Your task to perform on an android device: Play the latest video from the New York Times Image 0: 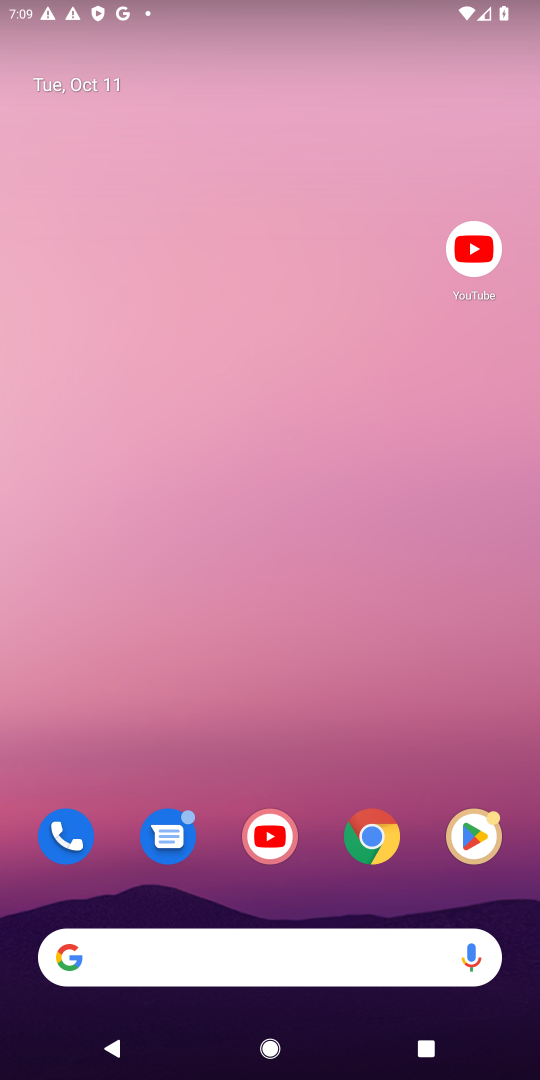
Step 0: click (371, 837)
Your task to perform on an android device: Play the latest video from the New York Times Image 1: 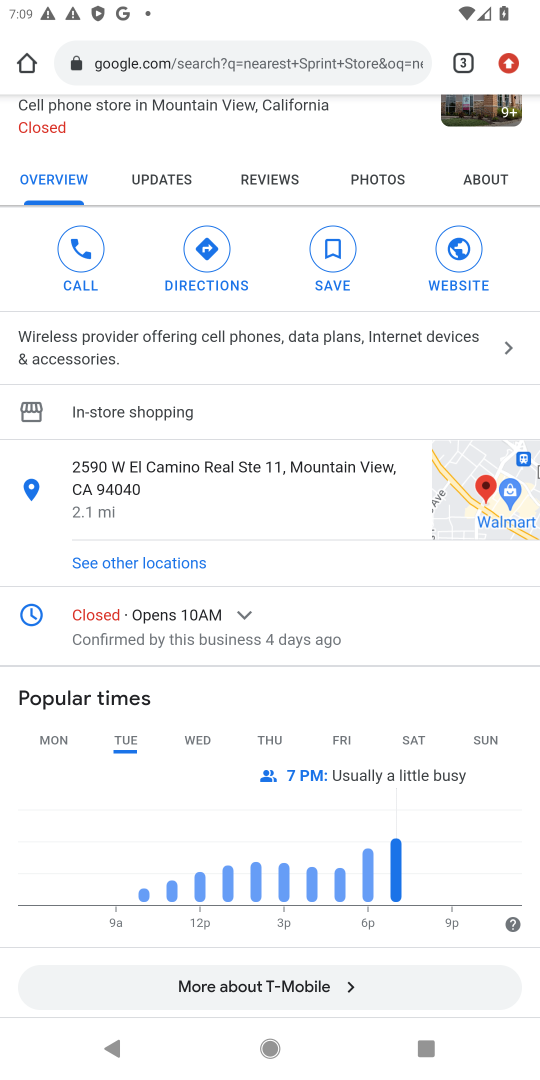
Step 1: click (246, 52)
Your task to perform on an android device: Play the latest video from the New York Times Image 2: 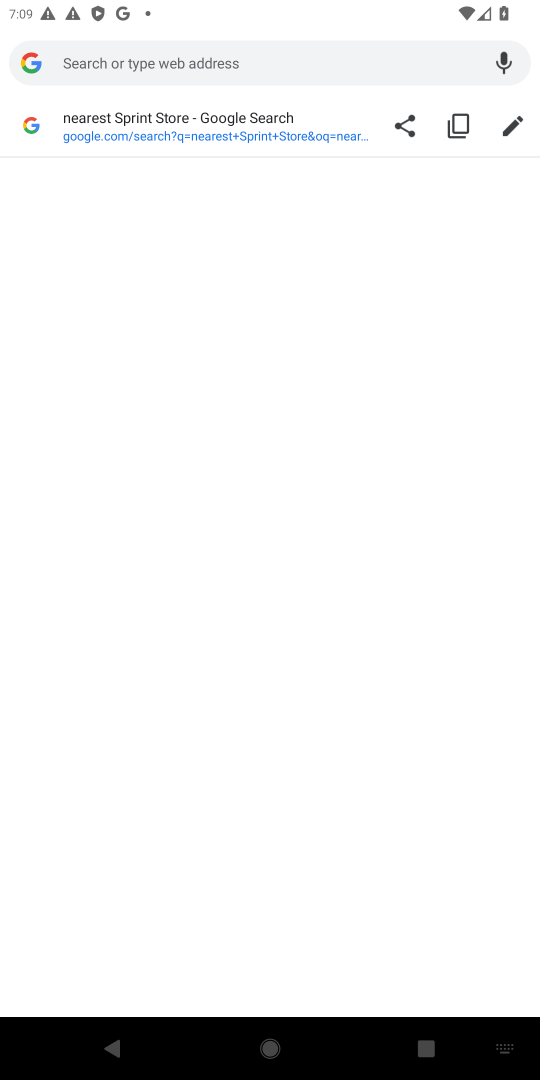
Step 2: type "latest video from the New York Times"
Your task to perform on an android device: Play the latest video from the New York Times Image 3: 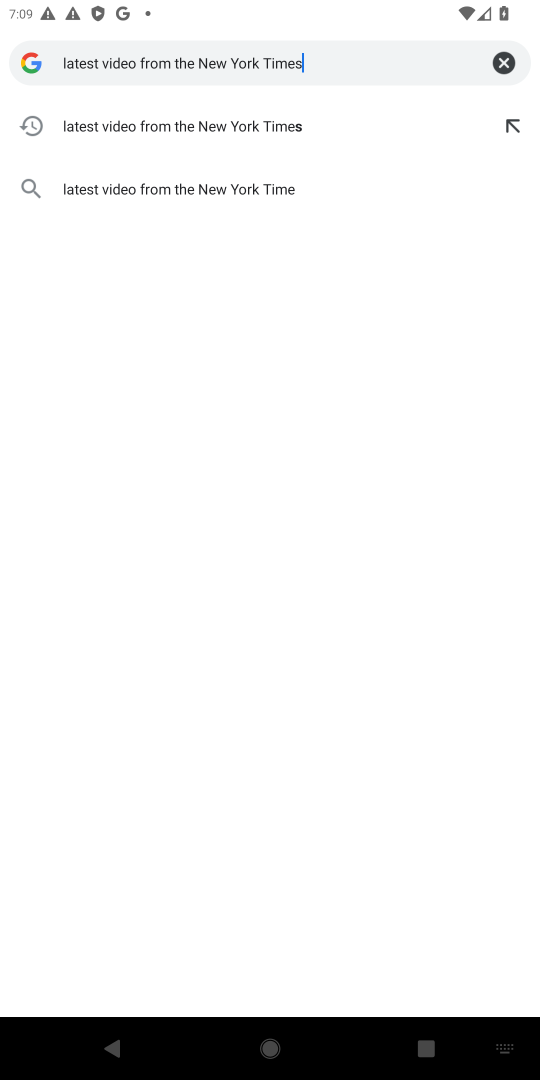
Step 3: press enter
Your task to perform on an android device: Play the latest video from the New York Times Image 4: 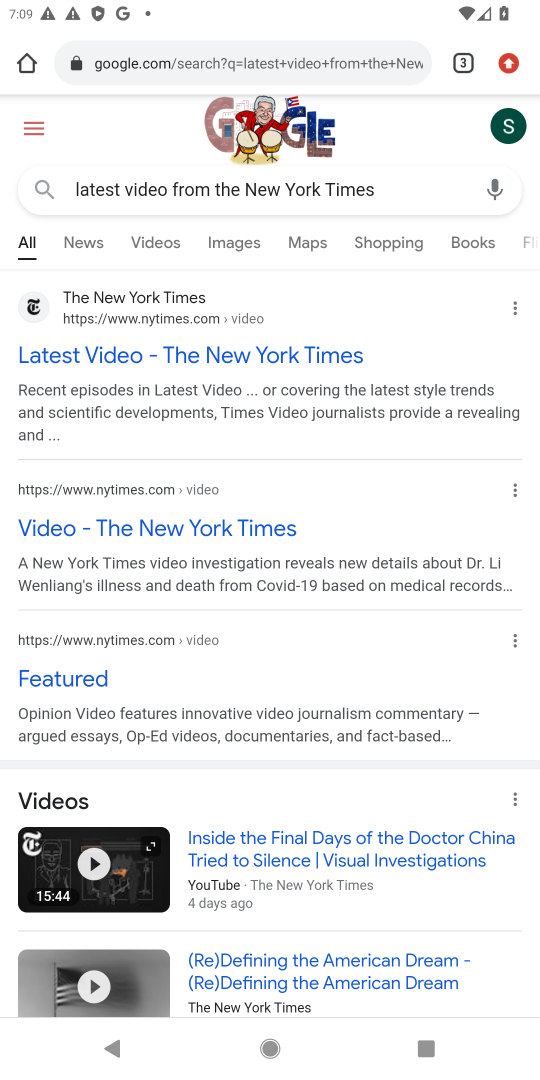
Step 4: click (106, 850)
Your task to perform on an android device: Play the latest video from the New York Times Image 5: 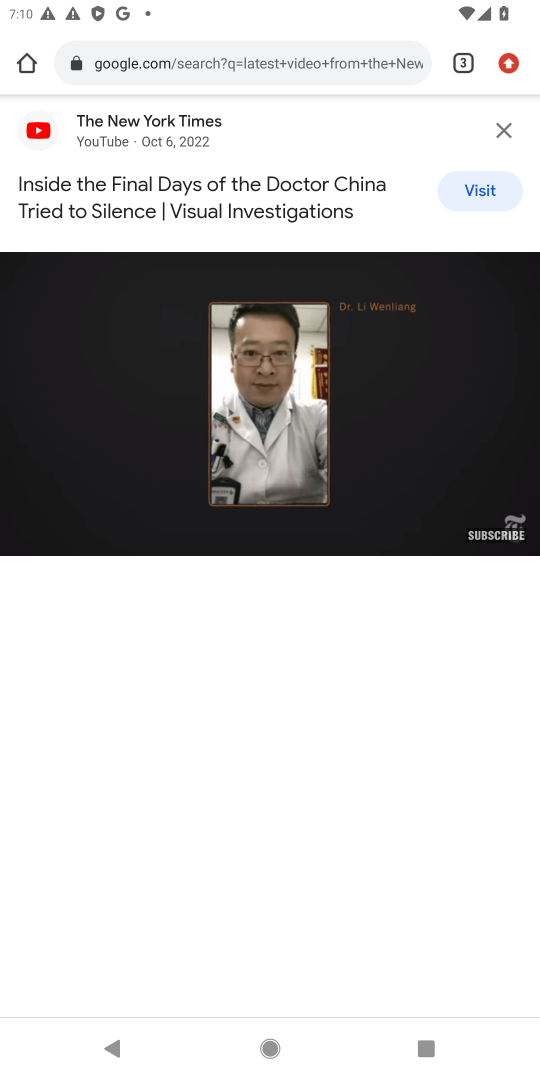
Step 5: click (241, 375)
Your task to perform on an android device: Play the latest video from the New York Times Image 6: 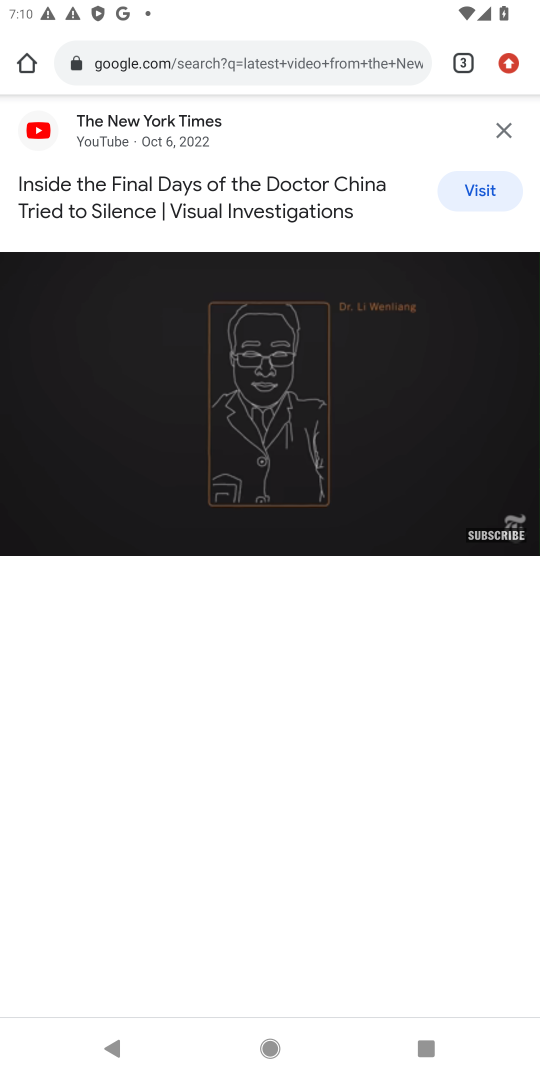
Step 6: click (272, 406)
Your task to perform on an android device: Play the latest video from the New York Times Image 7: 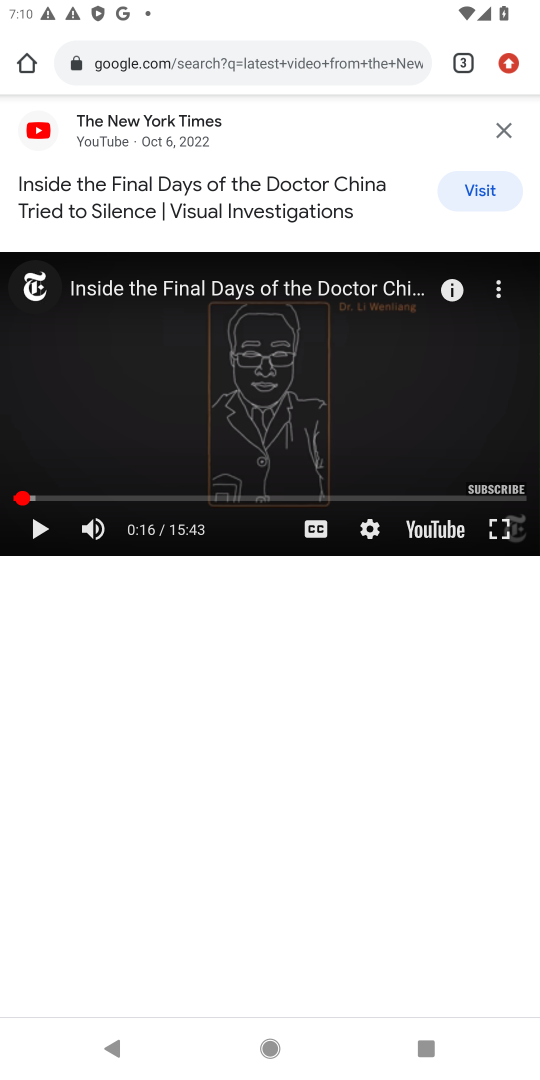
Step 7: task complete